Your task to perform on an android device: turn off airplane mode Image 0: 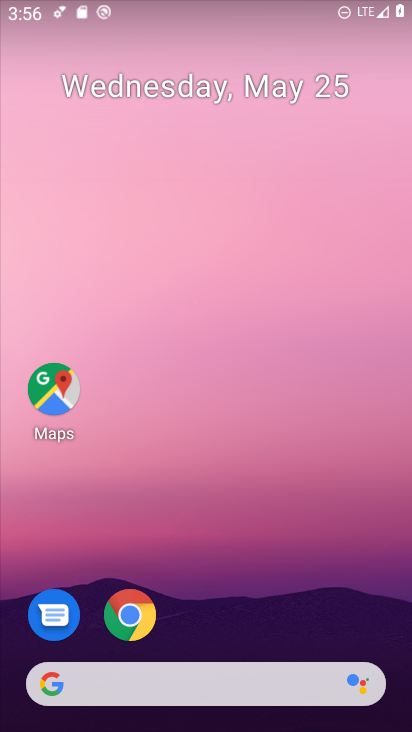
Step 0: drag from (239, 587) to (264, 42)
Your task to perform on an android device: turn off airplane mode Image 1: 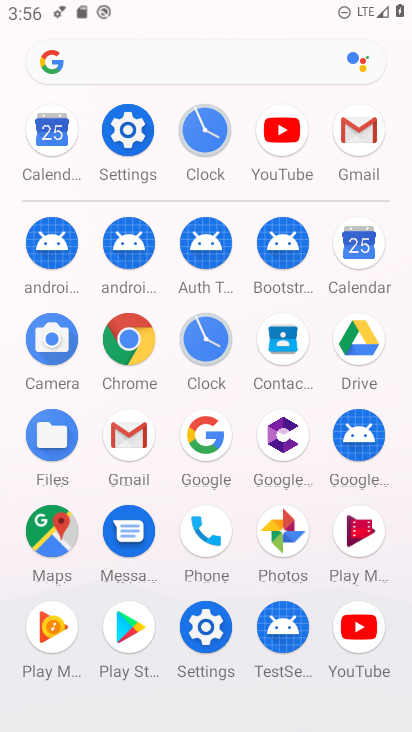
Step 1: click (126, 125)
Your task to perform on an android device: turn off airplane mode Image 2: 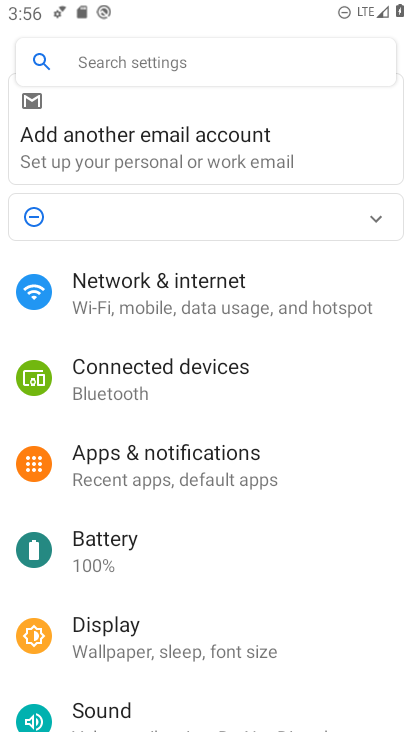
Step 2: click (168, 288)
Your task to perform on an android device: turn off airplane mode Image 3: 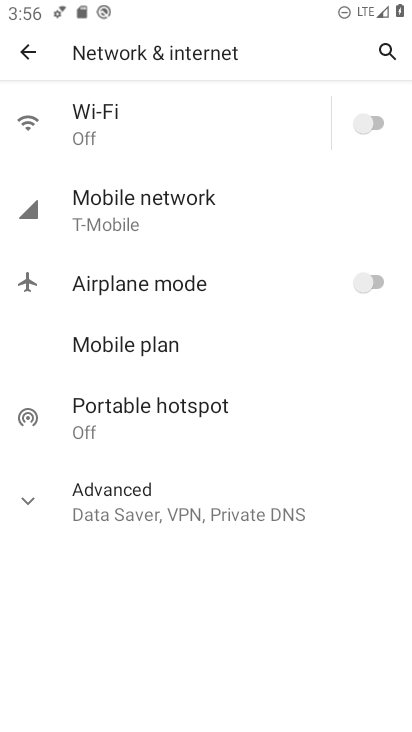
Step 3: task complete